Your task to perform on an android device: Open Google Maps and go to "Timeline" Image 0: 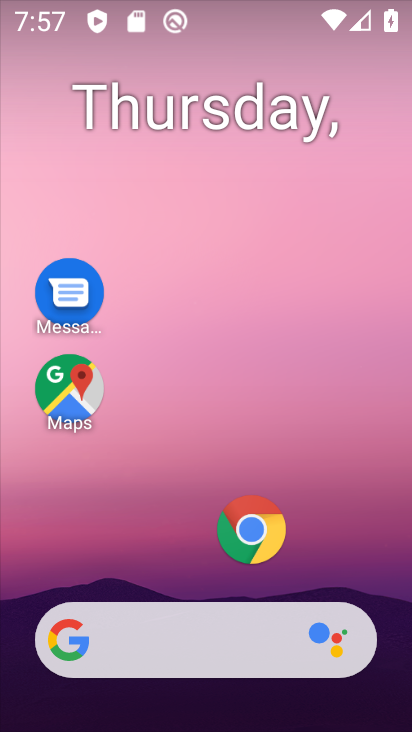
Step 0: click (86, 386)
Your task to perform on an android device: Open Google Maps and go to "Timeline" Image 1: 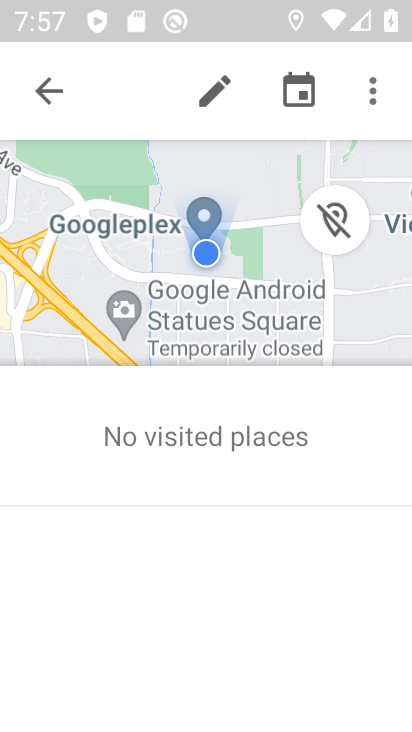
Step 1: click (63, 66)
Your task to perform on an android device: Open Google Maps and go to "Timeline" Image 2: 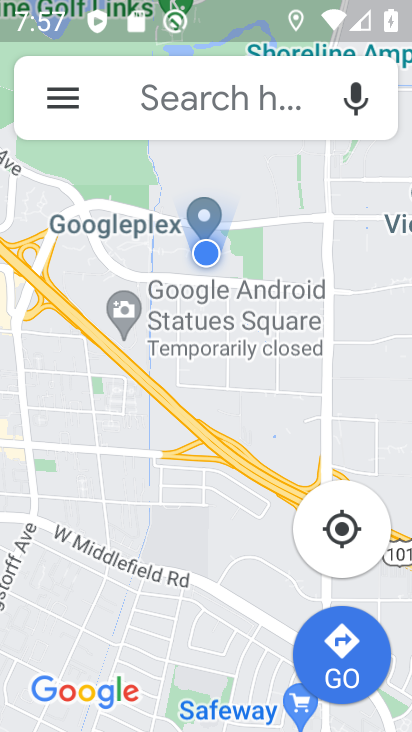
Step 2: click (68, 110)
Your task to perform on an android device: Open Google Maps and go to "Timeline" Image 3: 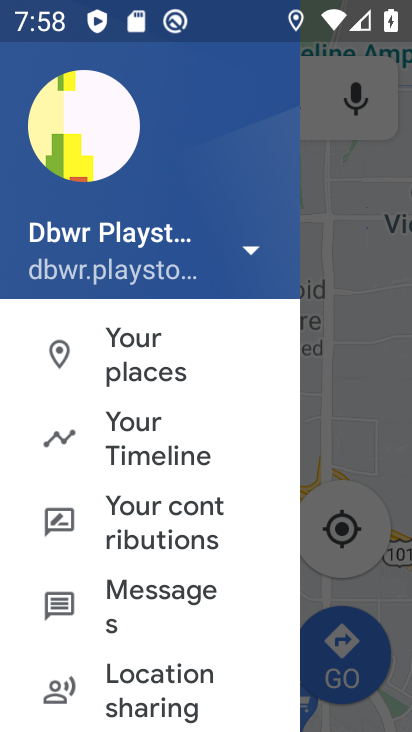
Step 3: click (124, 446)
Your task to perform on an android device: Open Google Maps and go to "Timeline" Image 4: 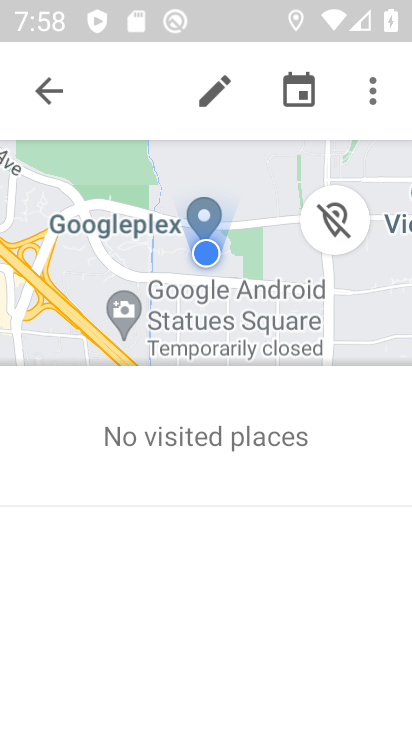
Step 4: task complete